Your task to perform on an android device: Turn on the flashlight Image 0: 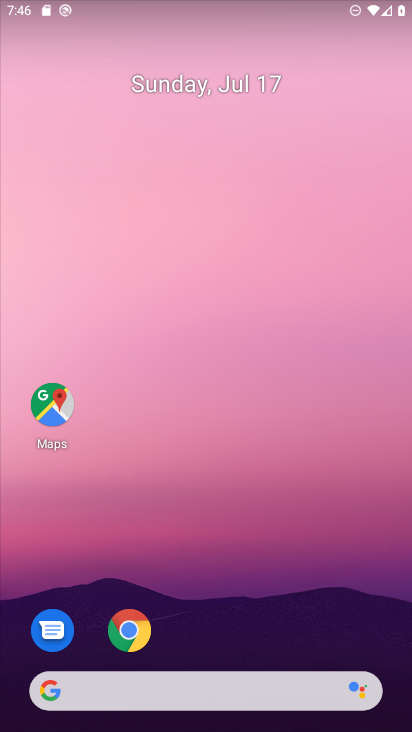
Step 0: drag from (240, 680) to (248, 230)
Your task to perform on an android device: Turn on the flashlight Image 1: 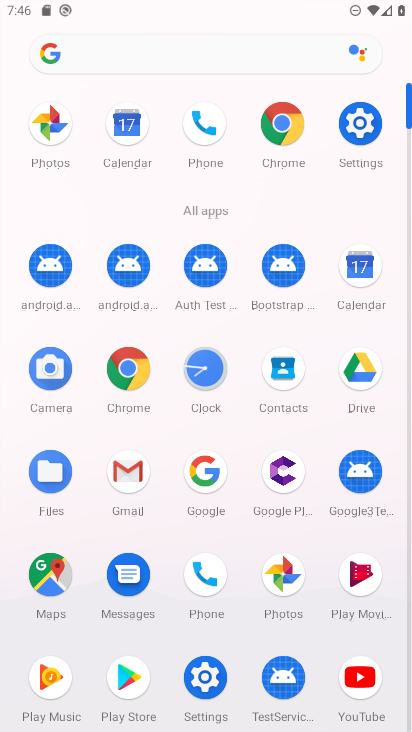
Step 1: click (346, 117)
Your task to perform on an android device: Turn on the flashlight Image 2: 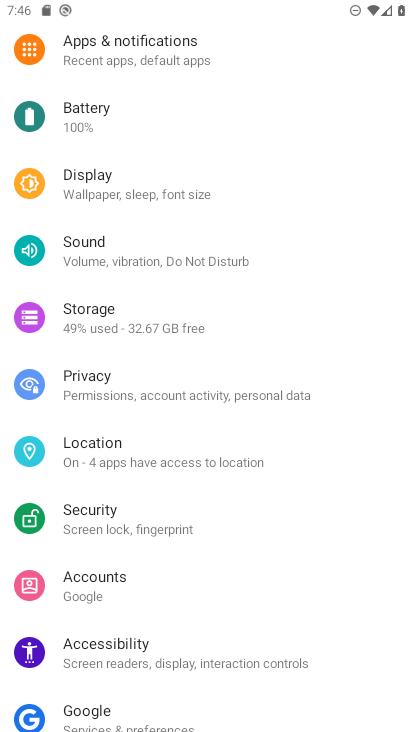
Step 2: task complete